Your task to perform on an android device: Go to display settings Image 0: 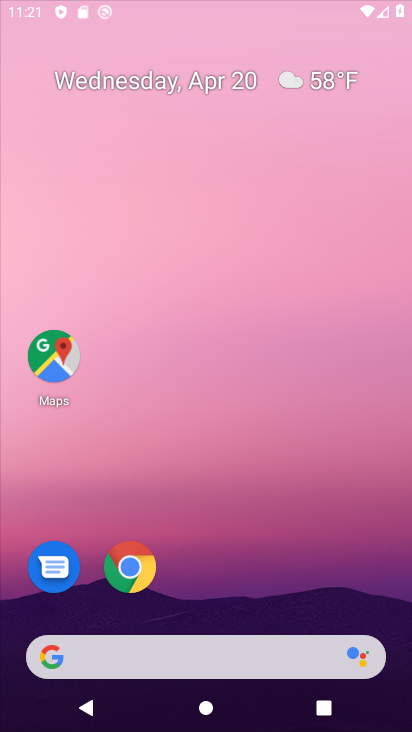
Step 0: drag from (394, 584) to (239, 88)
Your task to perform on an android device: Go to display settings Image 1: 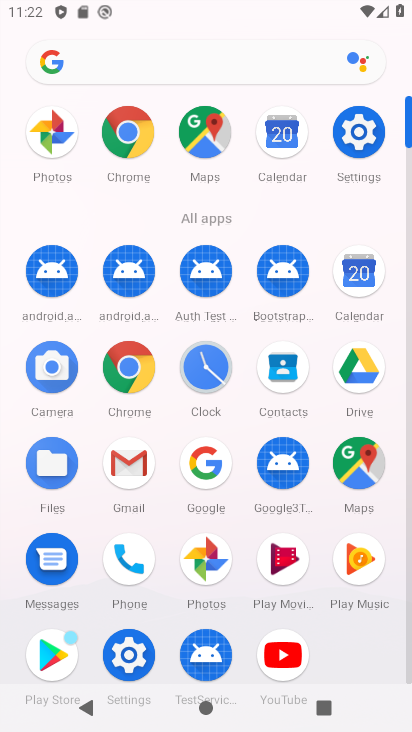
Step 1: click (361, 150)
Your task to perform on an android device: Go to display settings Image 2: 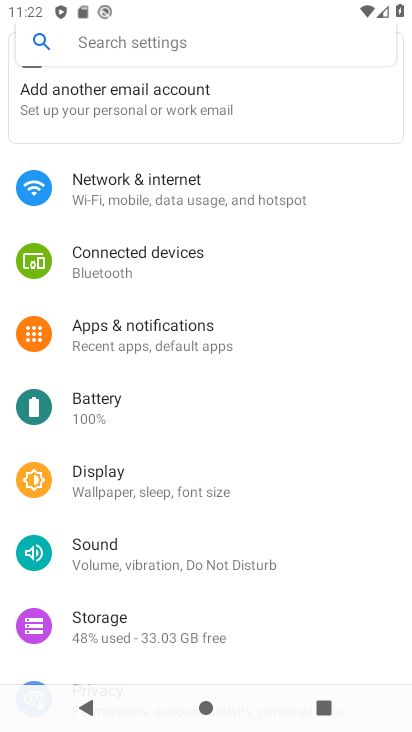
Step 2: click (208, 481)
Your task to perform on an android device: Go to display settings Image 3: 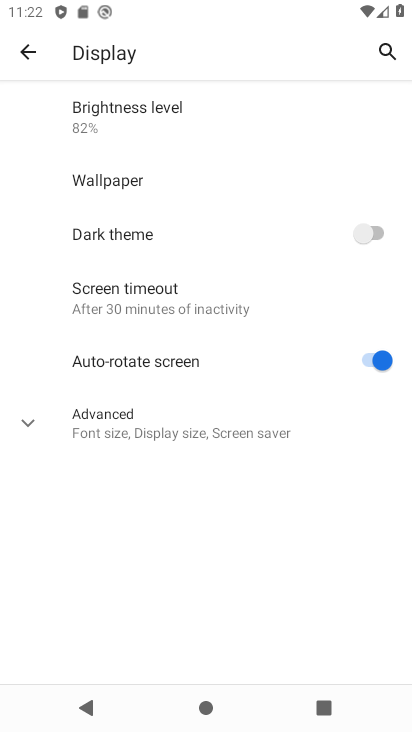
Step 3: task complete